Your task to perform on an android device: What's on my calendar today? Image 0: 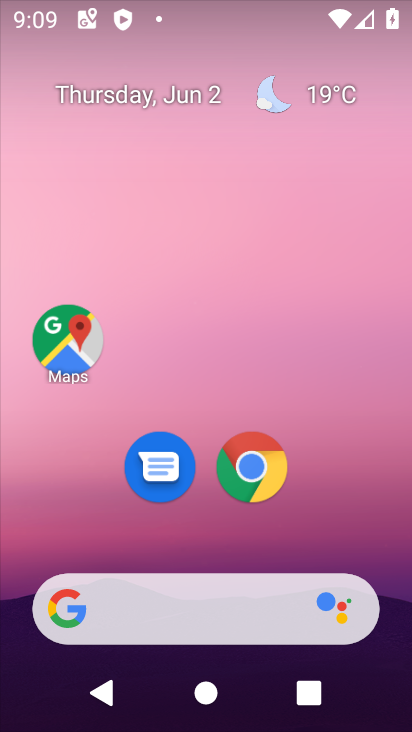
Step 0: drag from (194, 554) to (169, 153)
Your task to perform on an android device: What's on my calendar today? Image 1: 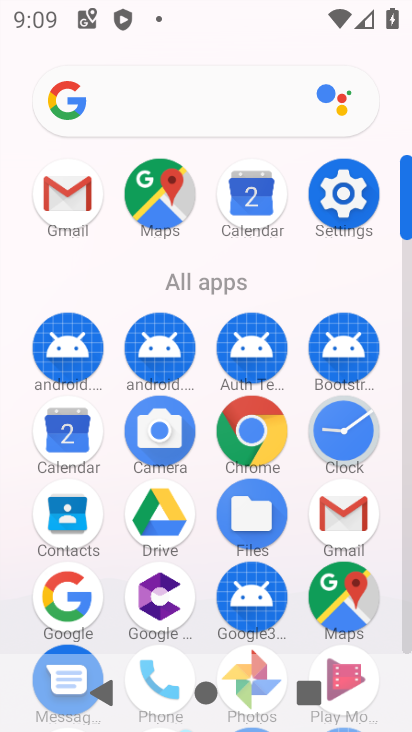
Step 1: click (69, 421)
Your task to perform on an android device: What's on my calendar today? Image 2: 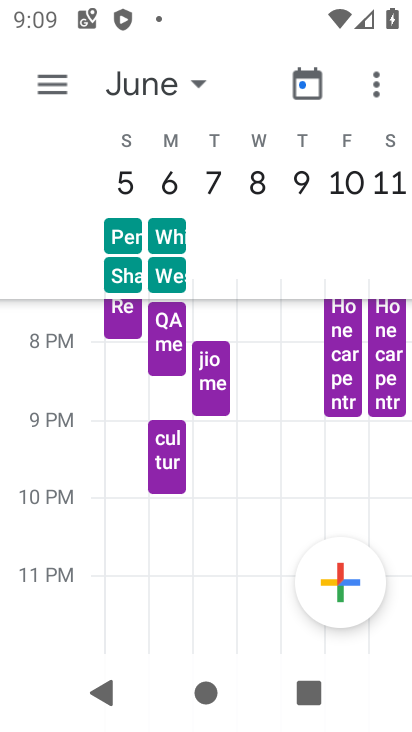
Step 2: click (136, 106)
Your task to perform on an android device: What's on my calendar today? Image 3: 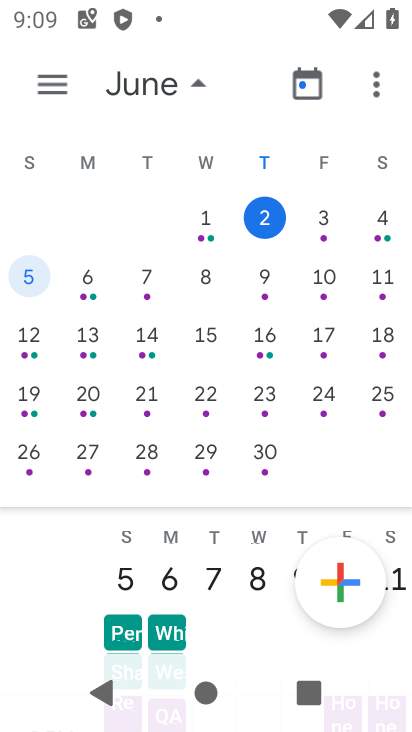
Step 3: drag from (55, 368) to (363, 353)
Your task to perform on an android device: What's on my calendar today? Image 4: 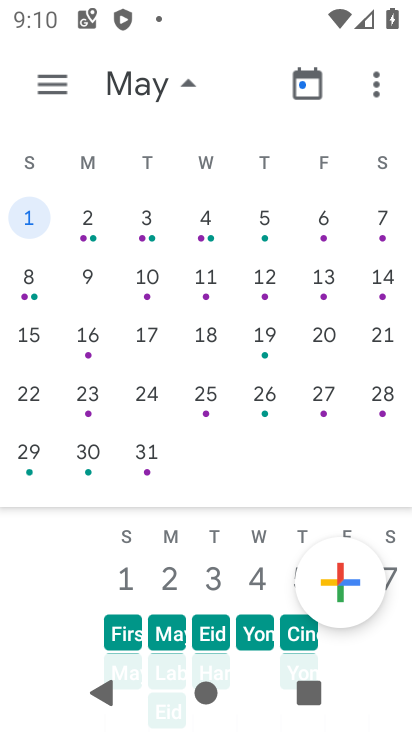
Step 4: click (48, 91)
Your task to perform on an android device: What's on my calendar today? Image 5: 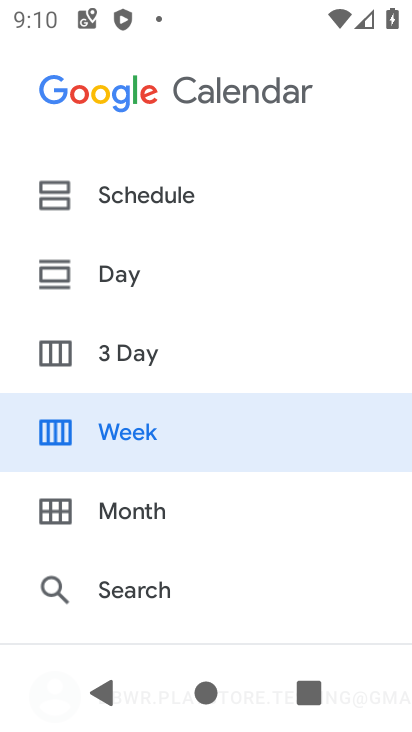
Step 5: press back button
Your task to perform on an android device: What's on my calendar today? Image 6: 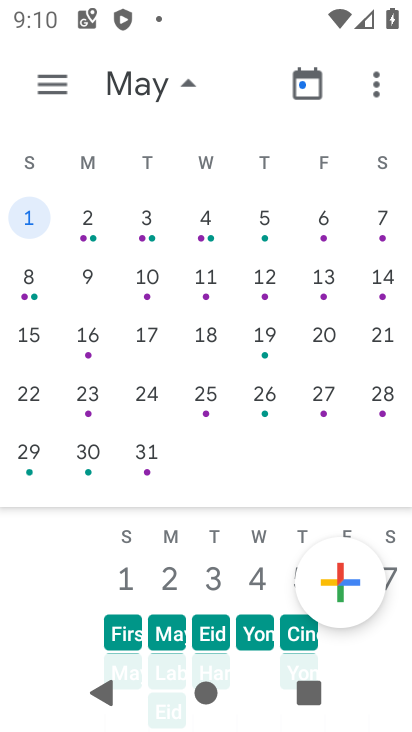
Step 6: drag from (351, 391) to (0, 390)
Your task to perform on an android device: What's on my calendar today? Image 7: 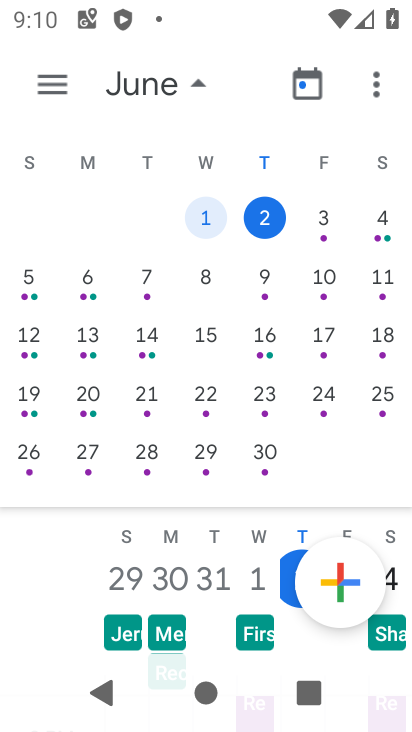
Step 7: click (61, 100)
Your task to perform on an android device: What's on my calendar today? Image 8: 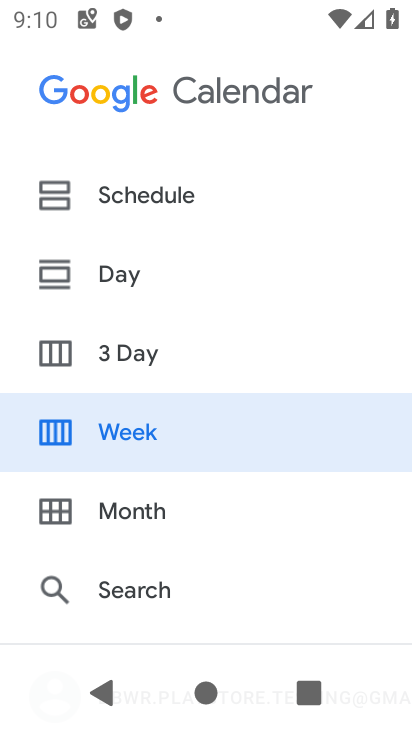
Step 8: click (98, 195)
Your task to perform on an android device: What's on my calendar today? Image 9: 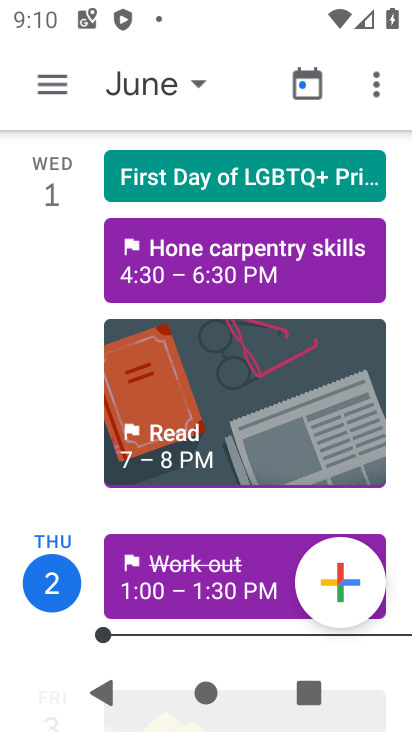
Step 9: task complete